Your task to perform on an android device: check out phone information Image 0: 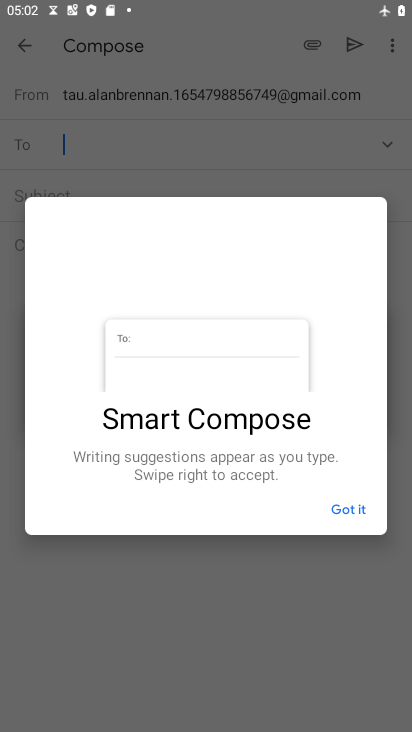
Step 0: press home button
Your task to perform on an android device: check out phone information Image 1: 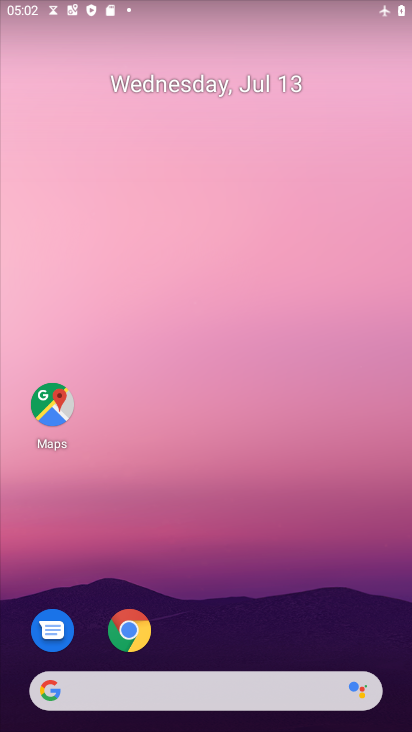
Step 1: drag from (280, 704) to (365, 125)
Your task to perform on an android device: check out phone information Image 2: 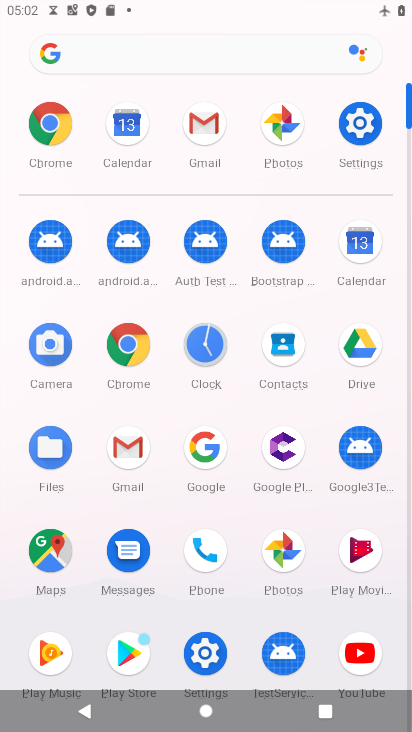
Step 2: click (368, 121)
Your task to perform on an android device: check out phone information Image 3: 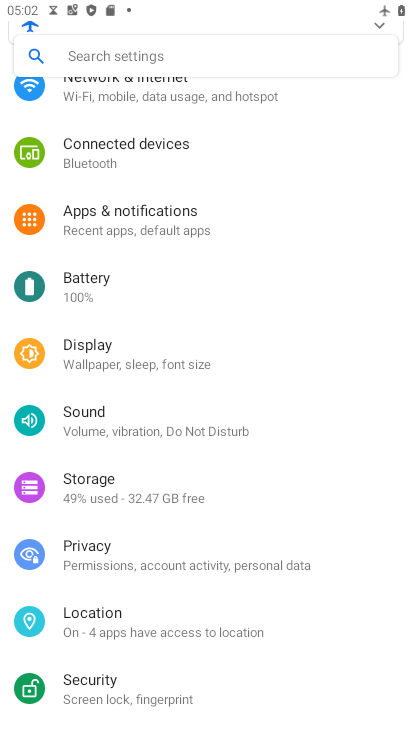
Step 3: drag from (193, 664) to (233, 192)
Your task to perform on an android device: check out phone information Image 4: 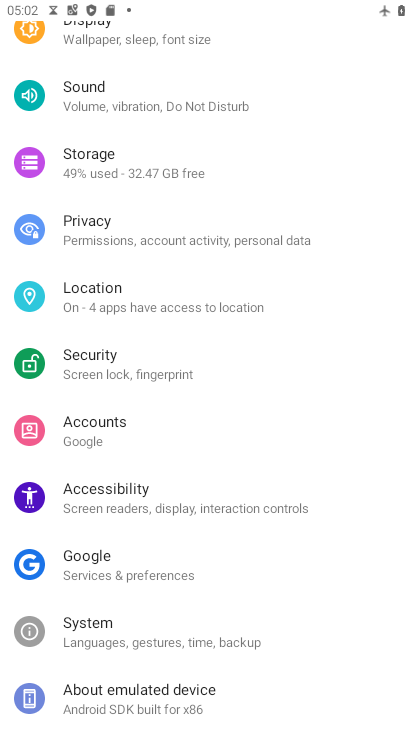
Step 4: click (130, 692)
Your task to perform on an android device: check out phone information Image 5: 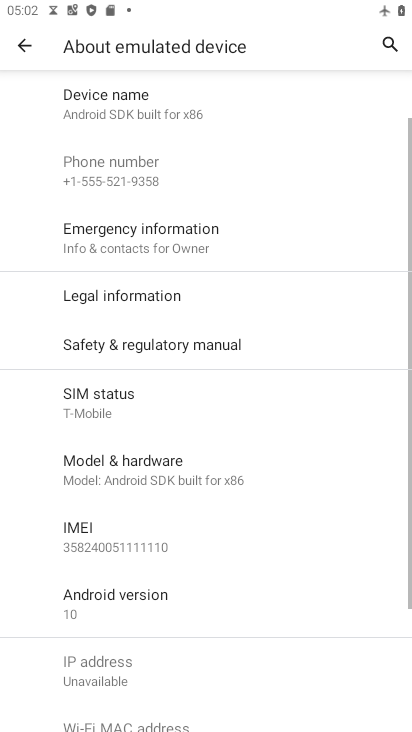
Step 5: task complete